Your task to perform on an android device: set the timer Image 0: 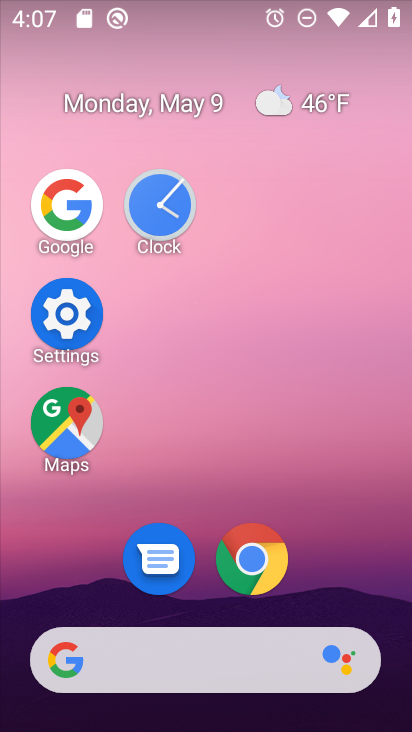
Step 0: click (149, 211)
Your task to perform on an android device: set the timer Image 1: 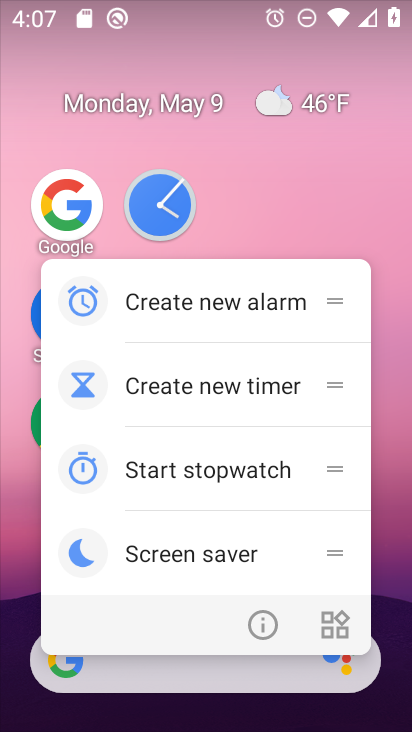
Step 1: click (151, 212)
Your task to perform on an android device: set the timer Image 2: 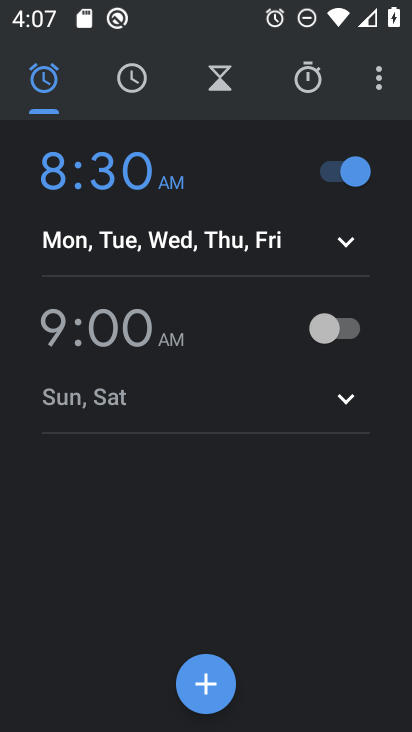
Step 2: click (228, 73)
Your task to perform on an android device: set the timer Image 3: 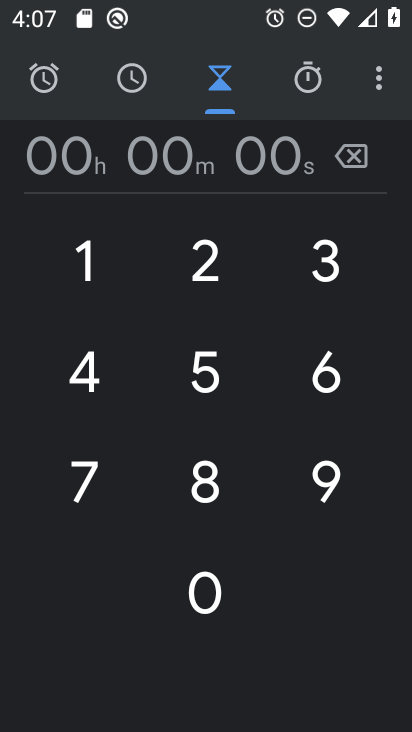
Step 3: click (197, 272)
Your task to perform on an android device: set the timer Image 4: 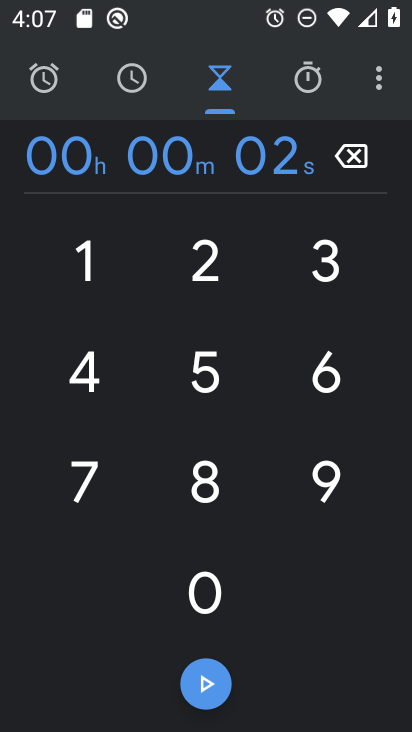
Step 4: click (197, 272)
Your task to perform on an android device: set the timer Image 5: 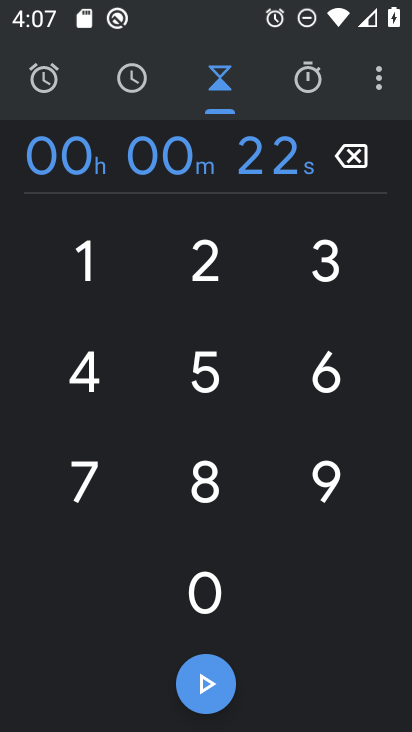
Step 5: click (216, 686)
Your task to perform on an android device: set the timer Image 6: 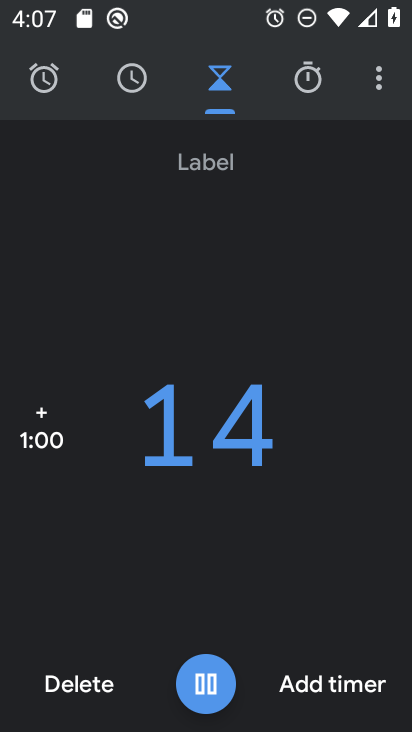
Step 6: task complete